Your task to perform on an android device: Show the shopping cart on amazon.com. Image 0: 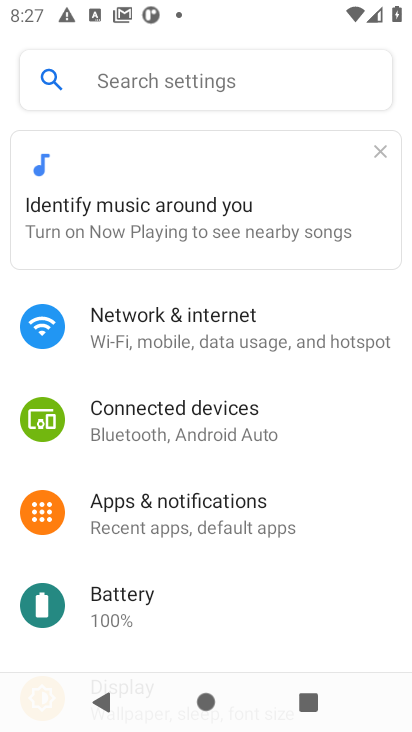
Step 0: press home button
Your task to perform on an android device: Show the shopping cart on amazon.com. Image 1: 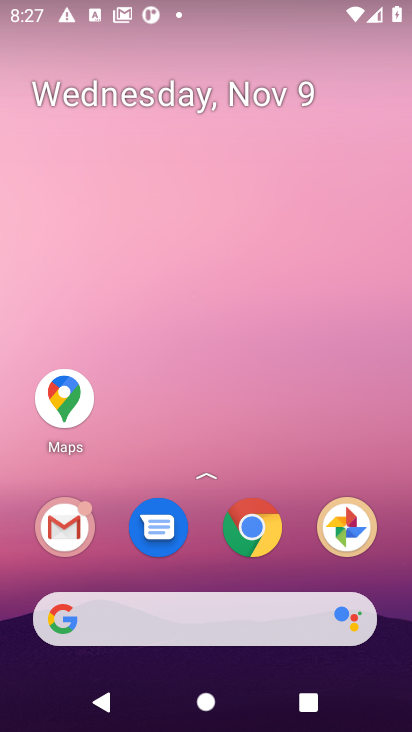
Step 1: click (253, 536)
Your task to perform on an android device: Show the shopping cart on amazon.com. Image 2: 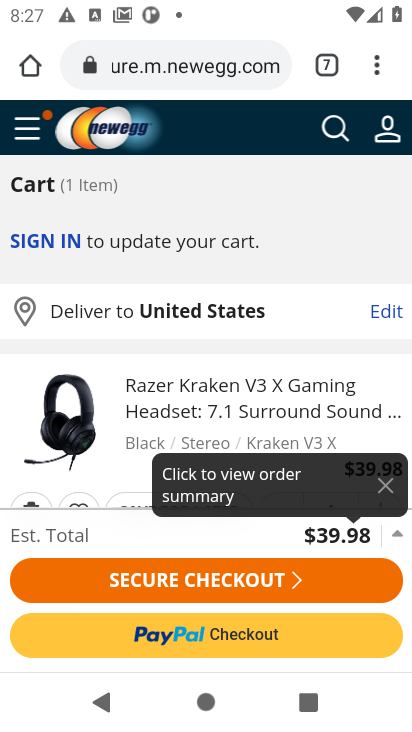
Step 2: click (207, 78)
Your task to perform on an android device: Show the shopping cart on amazon.com. Image 3: 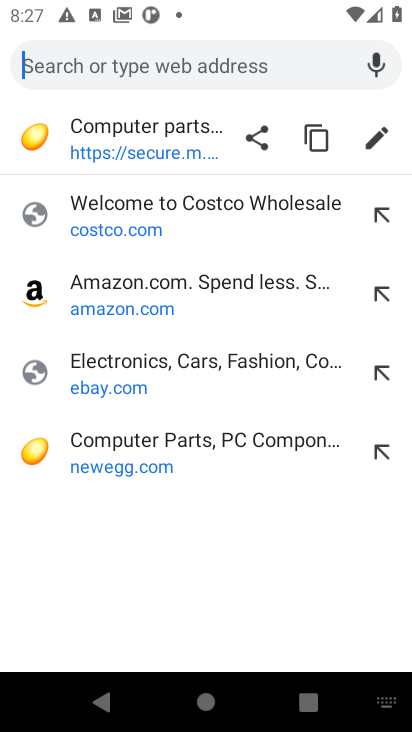
Step 3: click (85, 307)
Your task to perform on an android device: Show the shopping cart on amazon.com. Image 4: 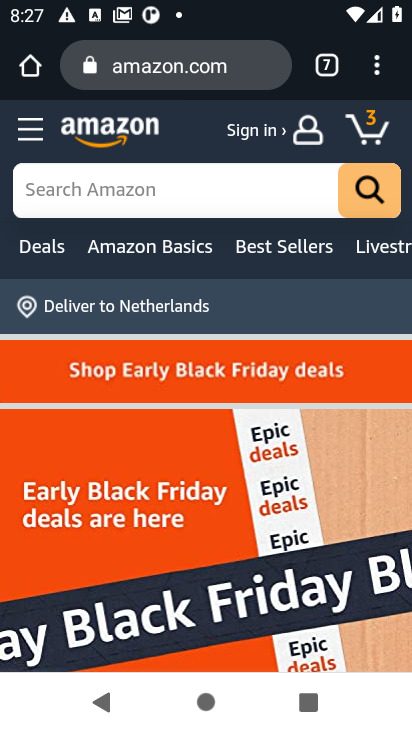
Step 4: click (380, 132)
Your task to perform on an android device: Show the shopping cart on amazon.com. Image 5: 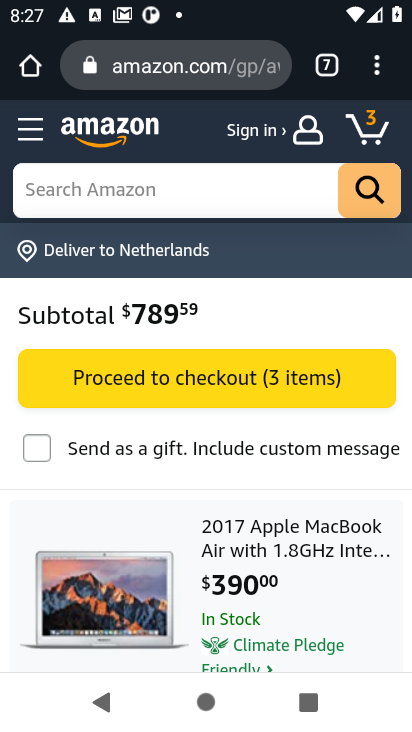
Step 5: task complete